Your task to perform on an android device: Check the news Image 0: 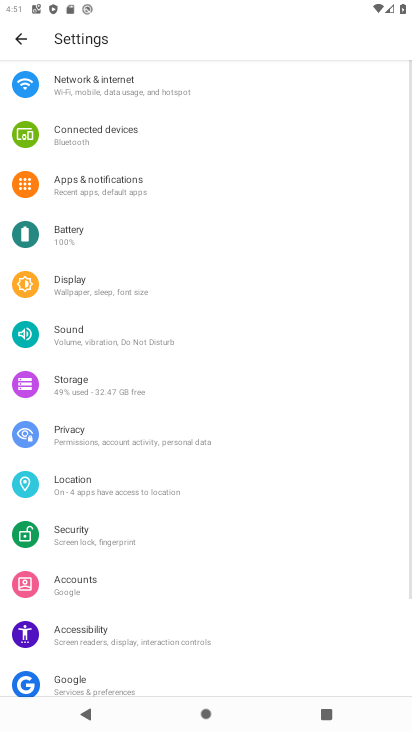
Step 0: press home button
Your task to perform on an android device: Check the news Image 1: 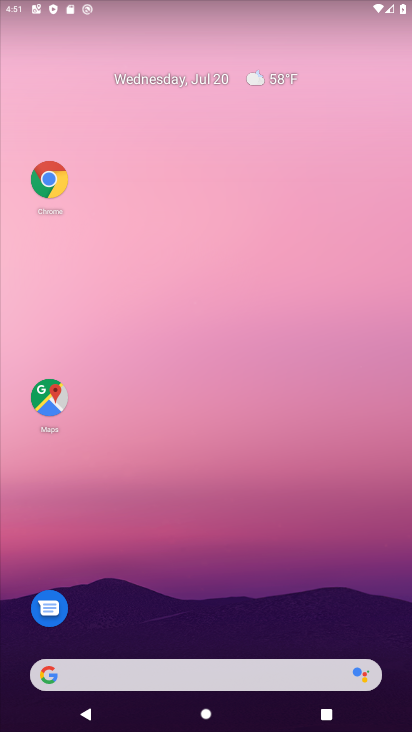
Step 1: click (234, 667)
Your task to perform on an android device: Check the news Image 2: 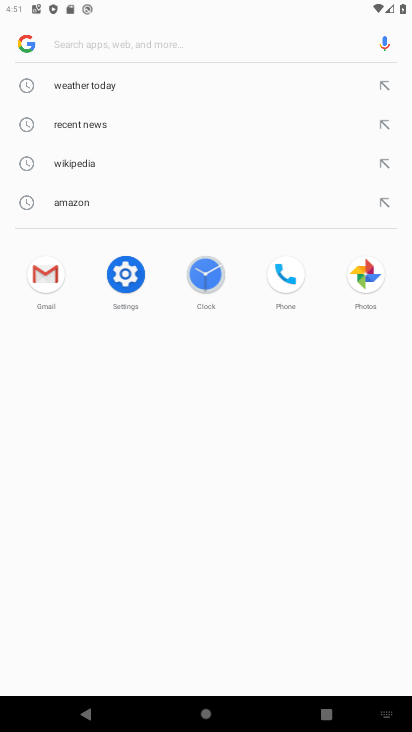
Step 2: click (85, 123)
Your task to perform on an android device: Check the news Image 3: 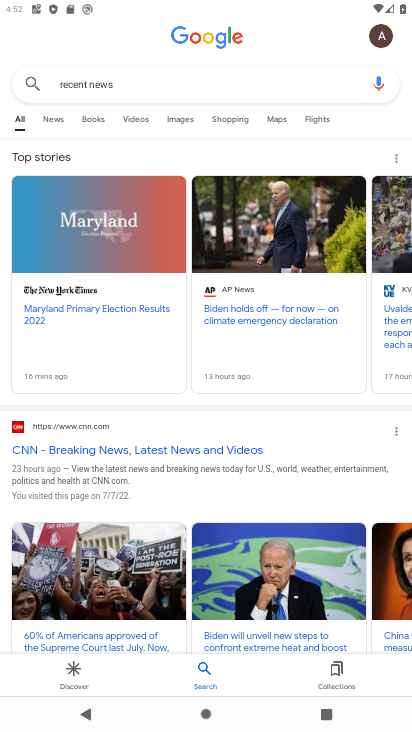
Step 3: click (55, 114)
Your task to perform on an android device: Check the news Image 4: 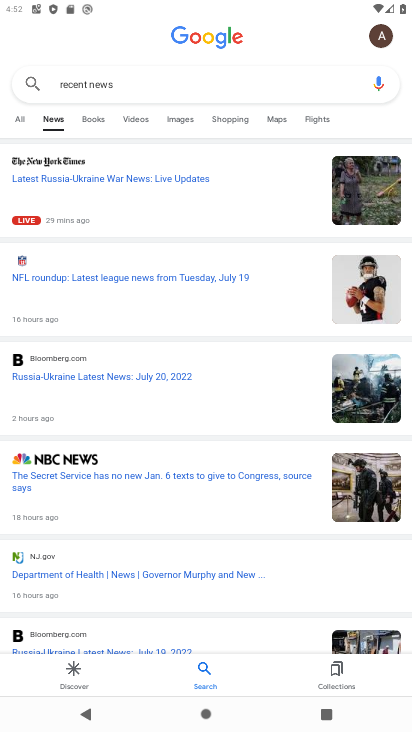
Step 4: task complete